Your task to perform on an android device: clear history in the chrome app Image 0: 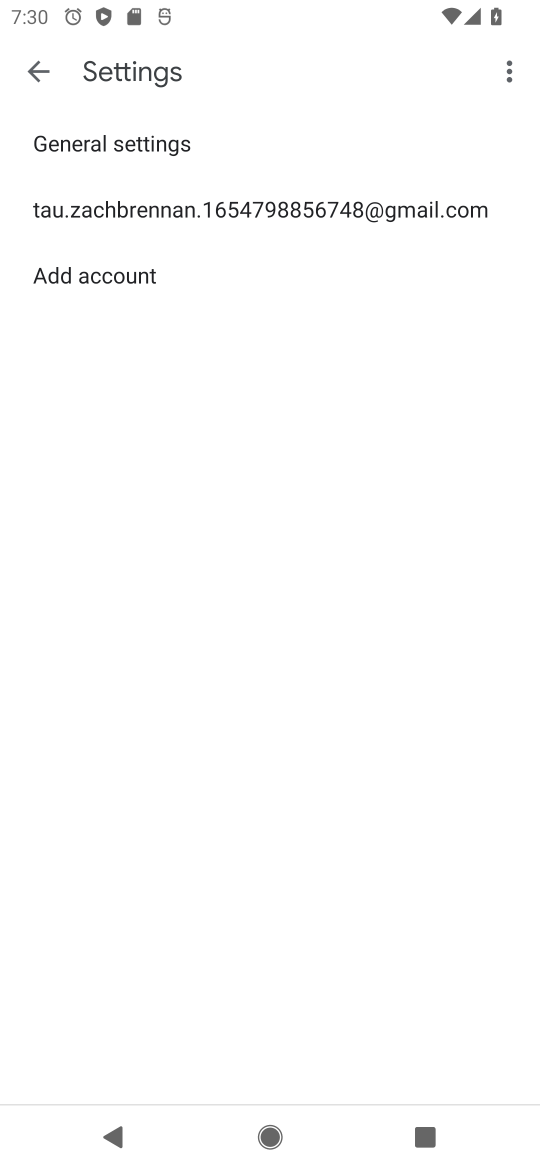
Step 0: press home button
Your task to perform on an android device: clear history in the chrome app Image 1: 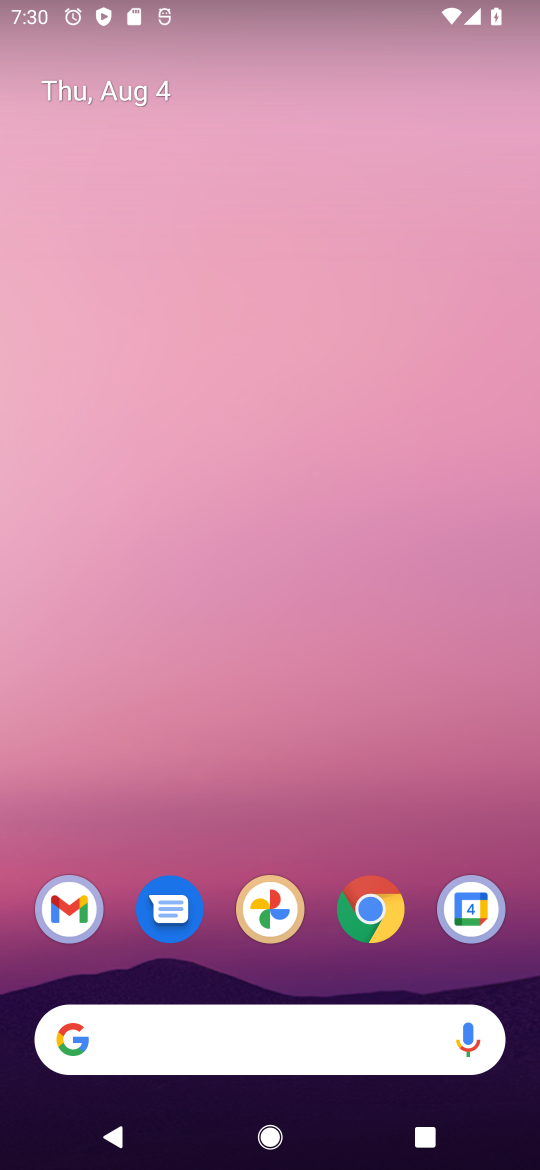
Step 1: drag from (204, 791) to (278, 86)
Your task to perform on an android device: clear history in the chrome app Image 2: 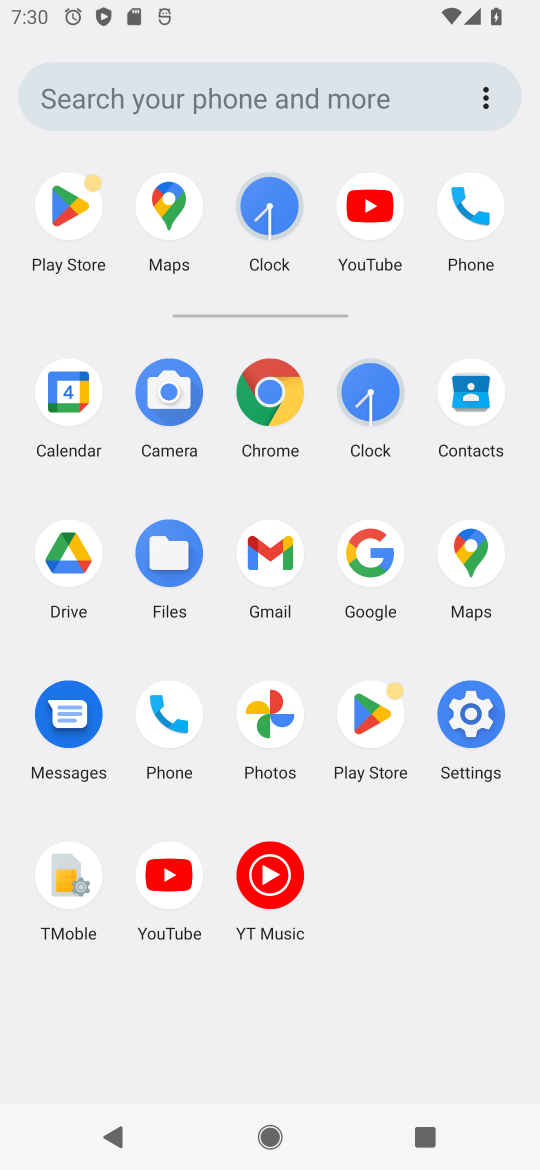
Step 2: click (284, 411)
Your task to perform on an android device: clear history in the chrome app Image 3: 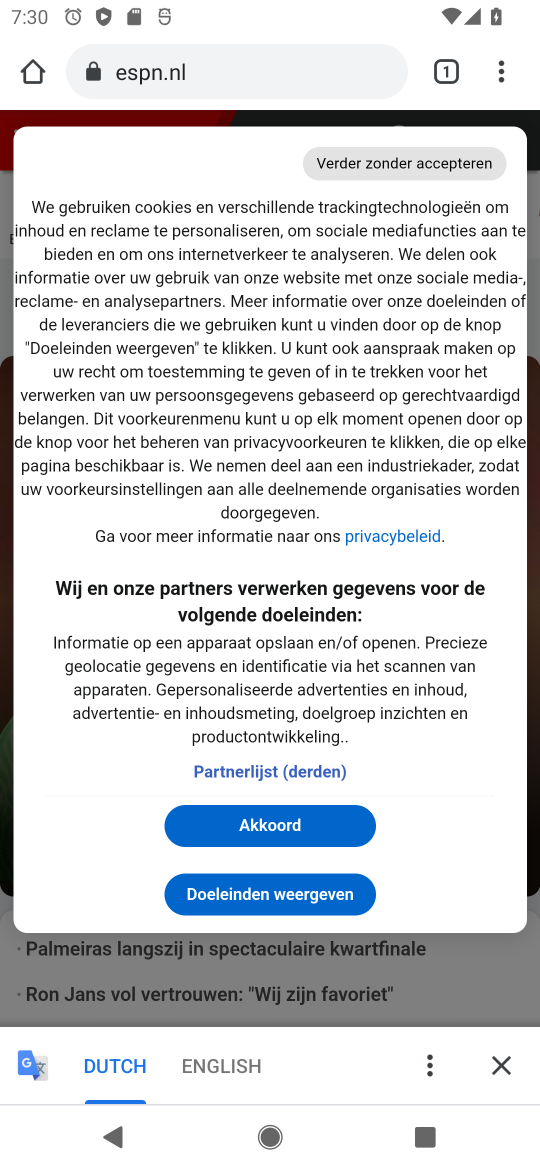
Step 3: drag from (495, 65) to (263, 368)
Your task to perform on an android device: clear history in the chrome app Image 4: 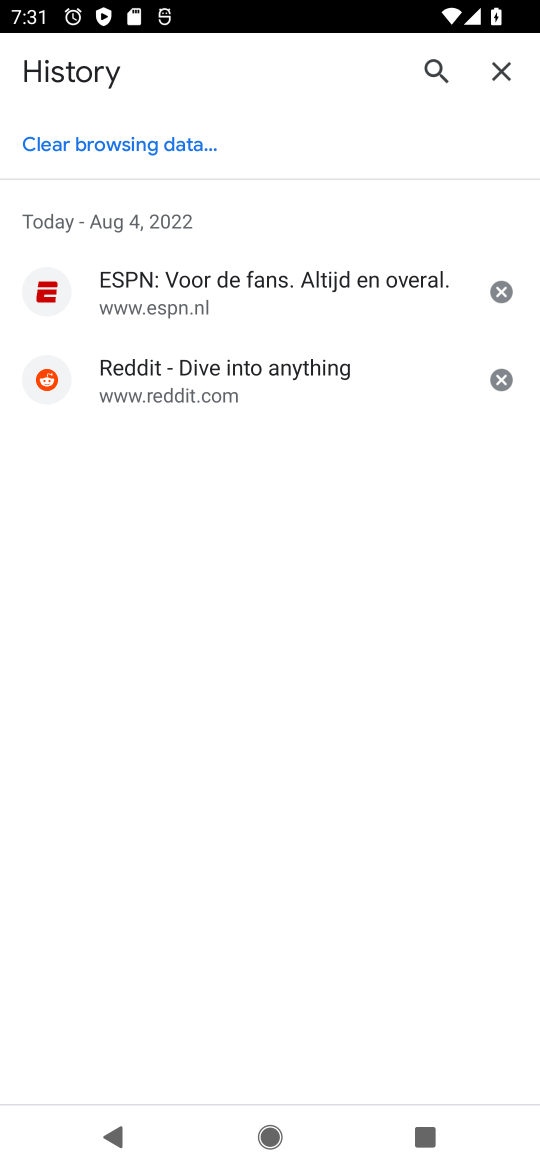
Step 4: click (99, 141)
Your task to perform on an android device: clear history in the chrome app Image 5: 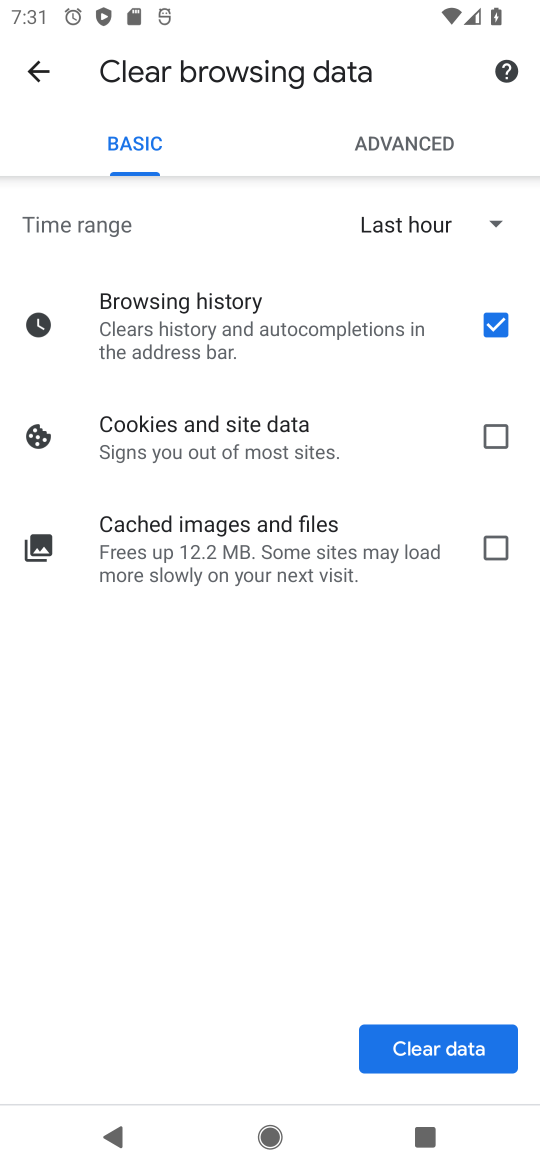
Step 5: click (440, 1053)
Your task to perform on an android device: clear history in the chrome app Image 6: 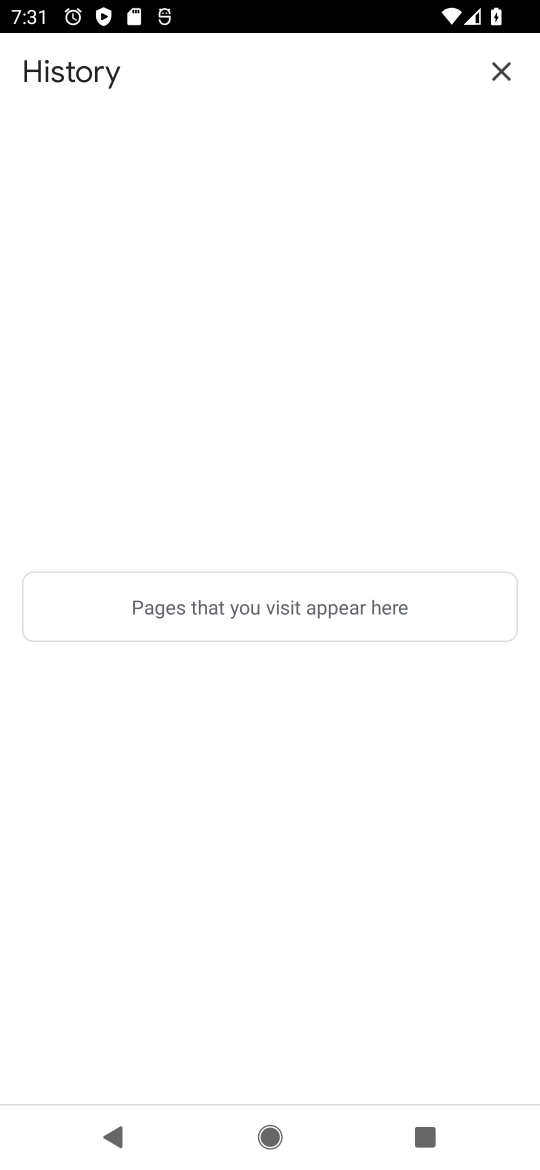
Step 6: task complete